Your task to perform on an android device: open sync settings in chrome Image 0: 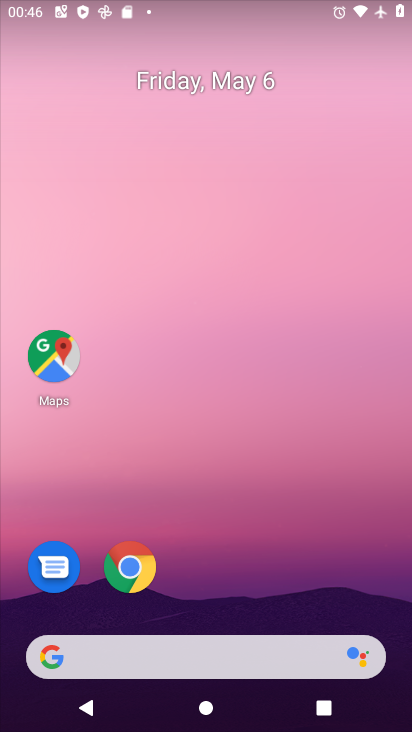
Step 0: click (139, 572)
Your task to perform on an android device: open sync settings in chrome Image 1: 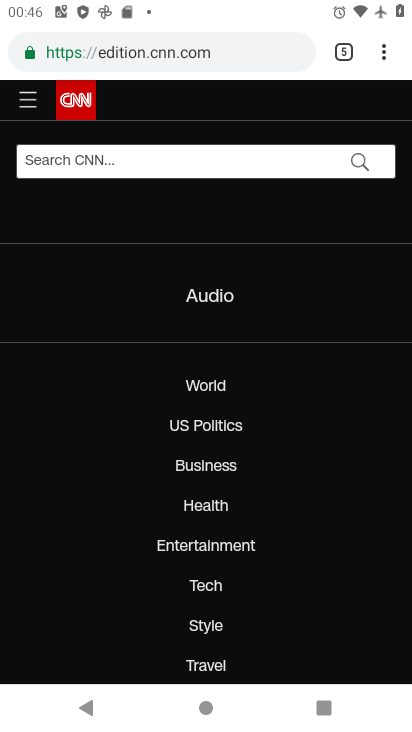
Step 1: click (389, 63)
Your task to perform on an android device: open sync settings in chrome Image 2: 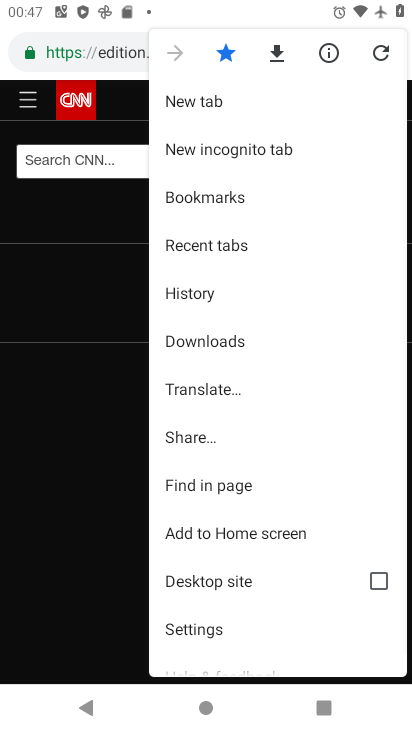
Step 2: click (229, 627)
Your task to perform on an android device: open sync settings in chrome Image 3: 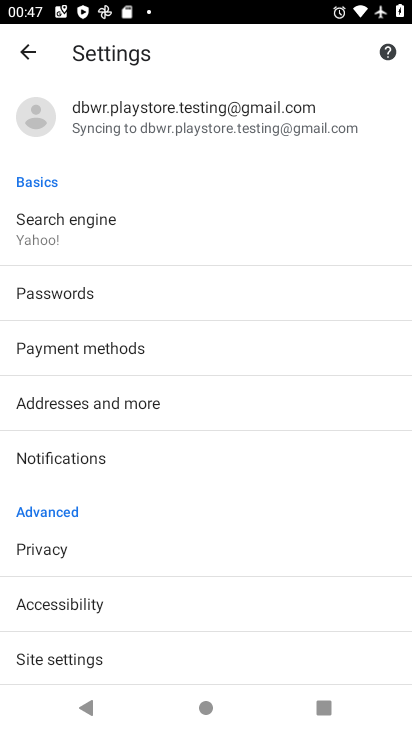
Step 3: drag from (203, 656) to (214, 408)
Your task to perform on an android device: open sync settings in chrome Image 4: 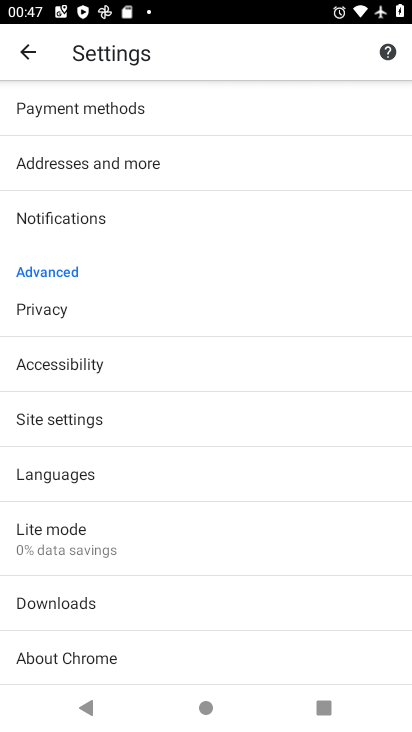
Step 4: drag from (244, 170) to (230, 686)
Your task to perform on an android device: open sync settings in chrome Image 5: 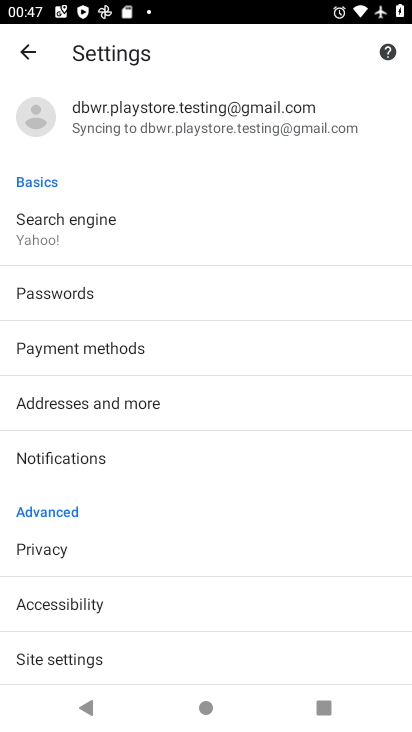
Step 5: click (190, 130)
Your task to perform on an android device: open sync settings in chrome Image 6: 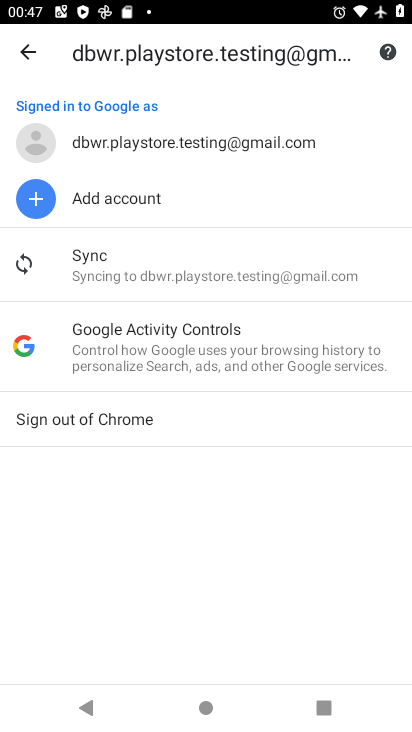
Step 6: click (138, 278)
Your task to perform on an android device: open sync settings in chrome Image 7: 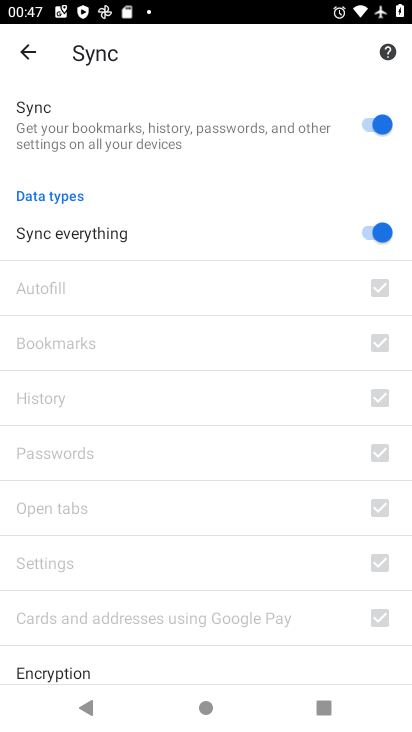
Step 7: task complete